Your task to perform on an android device: Go to network settings Image 0: 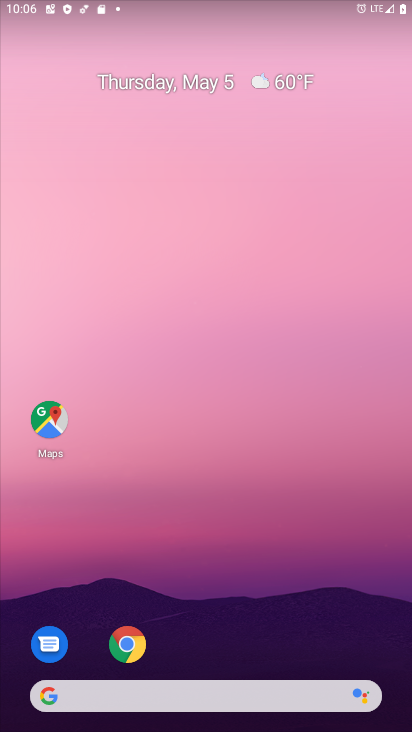
Step 0: drag from (228, 575) to (255, 164)
Your task to perform on an android device: Go to network settings Image 1: 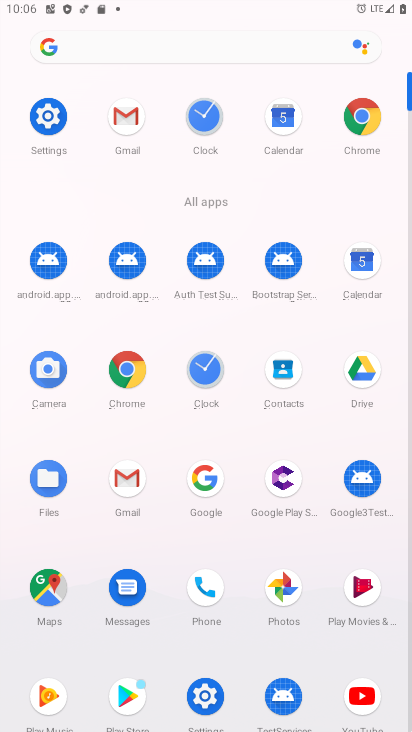
Step 1: click (43, 121)
Your task to perform on an android device: Go to network settings Image 2: 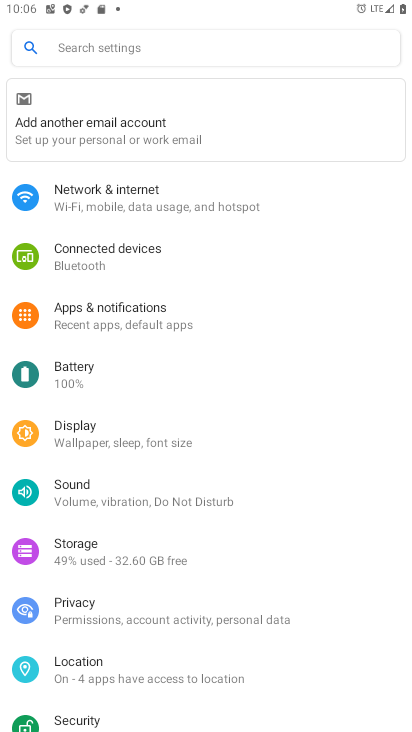
Step 2: click (175, 200)
Your task to perform on an android device: Go to network settings Image 3: 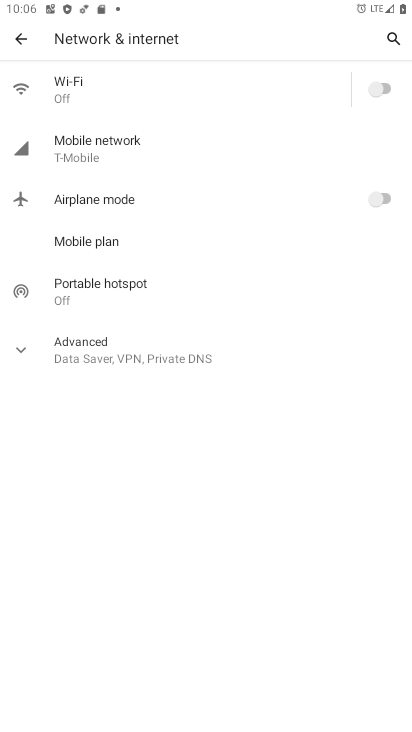
Step 3: click (164, 148)
Your task to perform on an android device: Go to network settings Image 4: 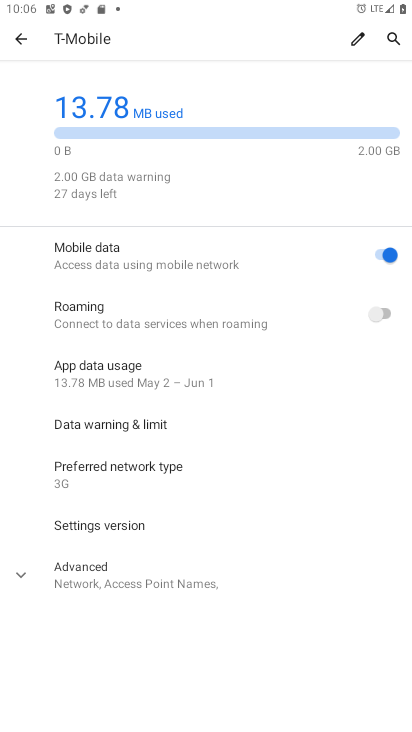
Step 4: task complete